Your task to perform on an android device: Go to wifi settings Image 0: 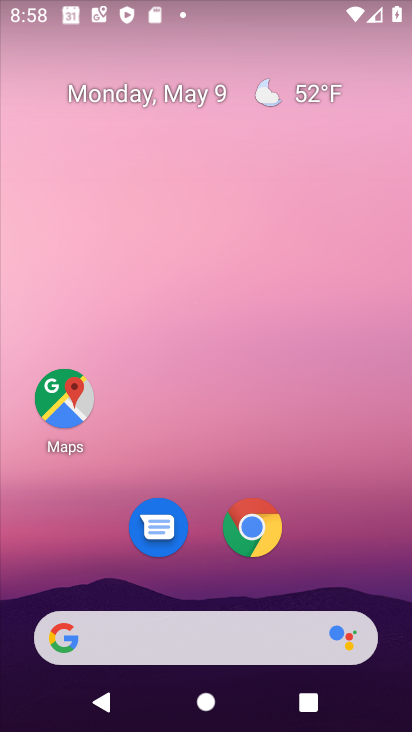
Step 0: drag from (204, 568) to (230, 123)
Your task to perform on an android device: Go to wifi settings Image 1: 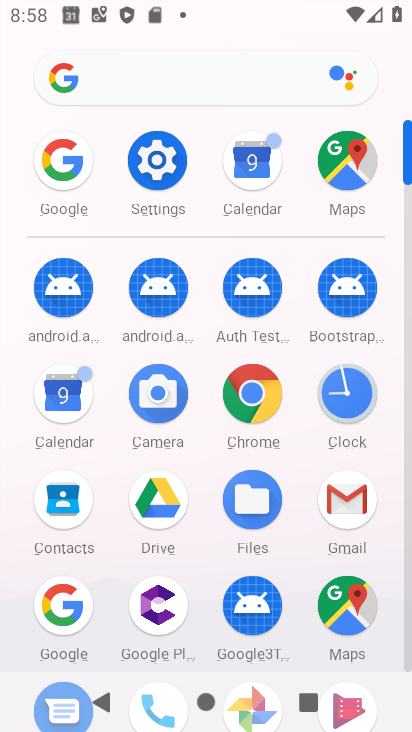
Step 1: click (162, 157)
Your task to perform on an android device: Go to wifi settings Image 2: 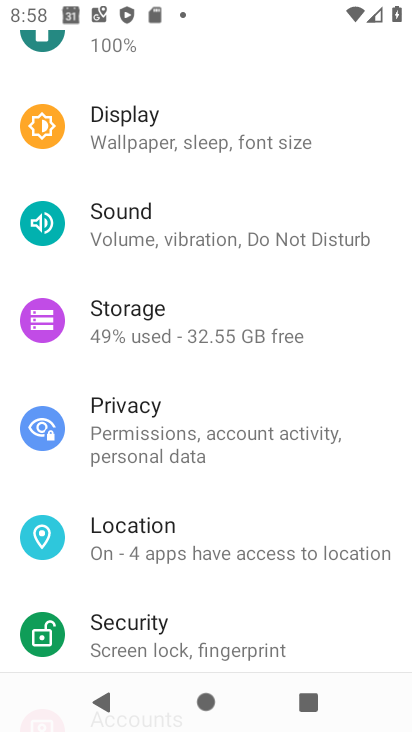
Step 2: drag from (199, 139) to (270, 530)
Your task to perform on an android device: Go to wifi settings Image 3: 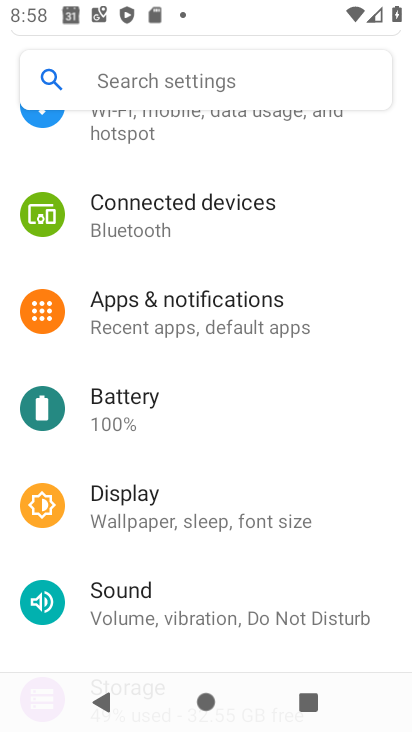
Step 3: drag from (192, 121) to (232, 376)
Your task to perform on an android device: Go to wifi settings Image 4: 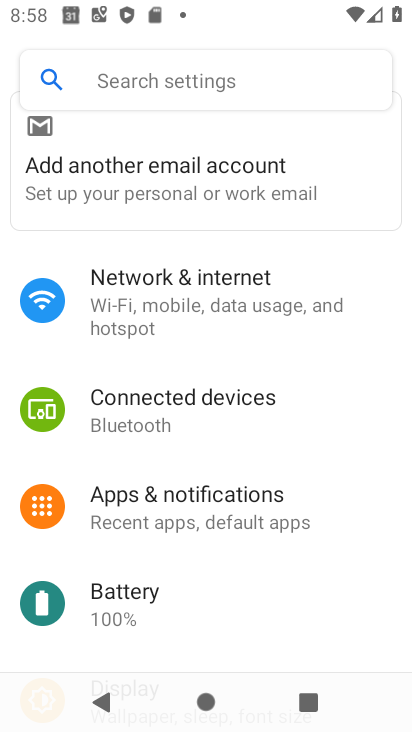
Step 4: click (176, 291)
Your task to perform on an android device: Go to wifi settings Image 5: 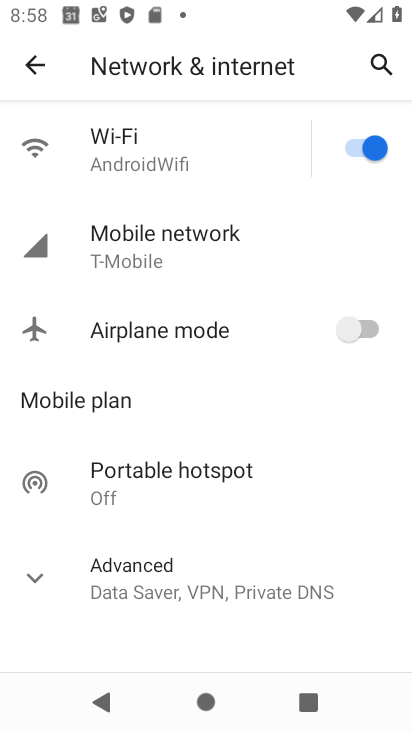
Step 5: click (144, 146)
Your task to perform on an android device: Go to wifi settings Image 6: 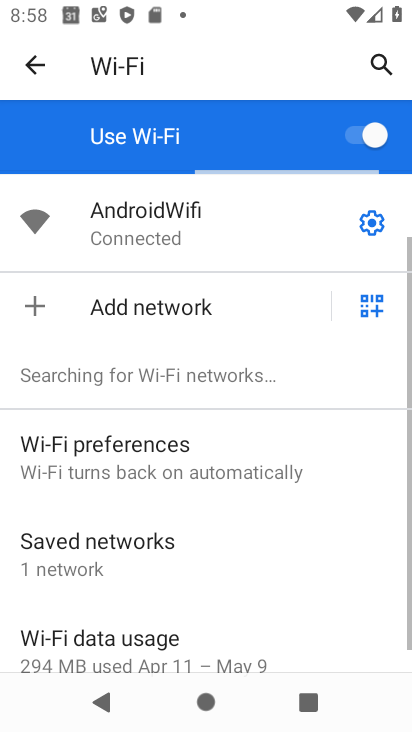
Step 6: click (242, 224)
Your task to perform on an android device: Go to wifi settings Image 7: 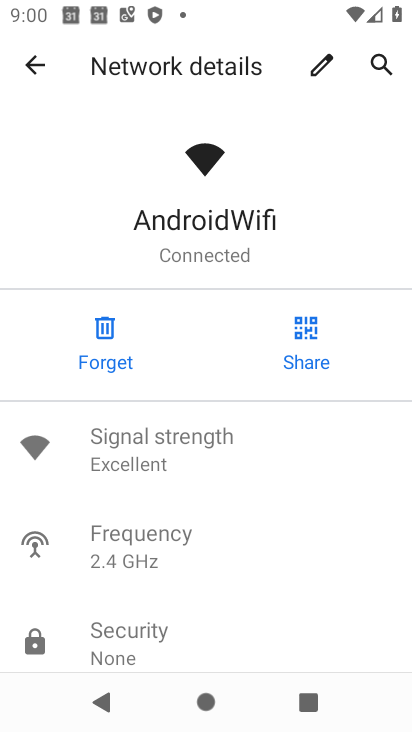
Step 7: task complete